Your task to perform on an android device: turn off picture-in-picture Image 0: 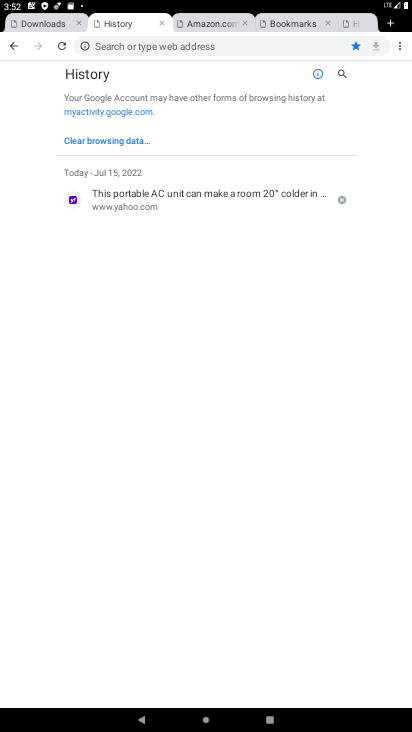
Step 0: press home button
Your task to perform on an android device: turn off picture-in-picture Image 1: 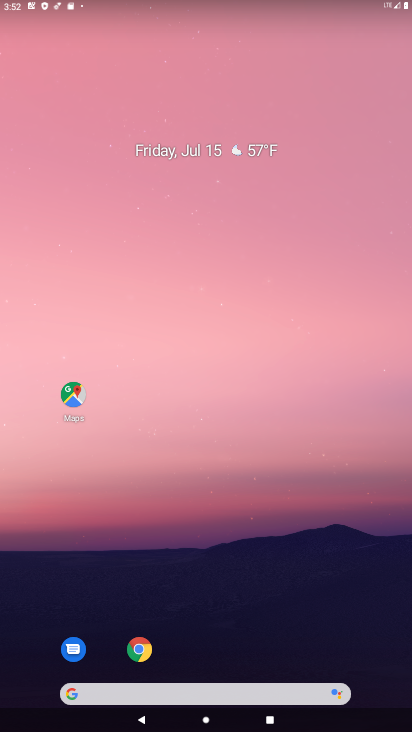
Step 1: drag from (239, 696) to (257, 219)
Your task to perform on an android device: turn off picture-in-picture Image 2: 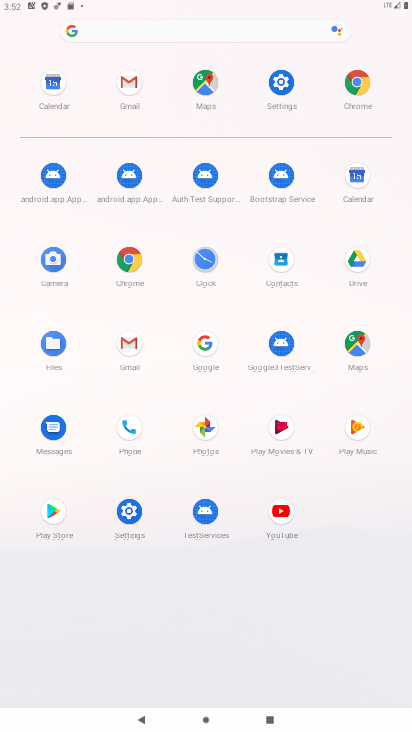
Step 2: click (277, 73)
Your task to perform on an android device: turn off picture-in-picture Image 3: 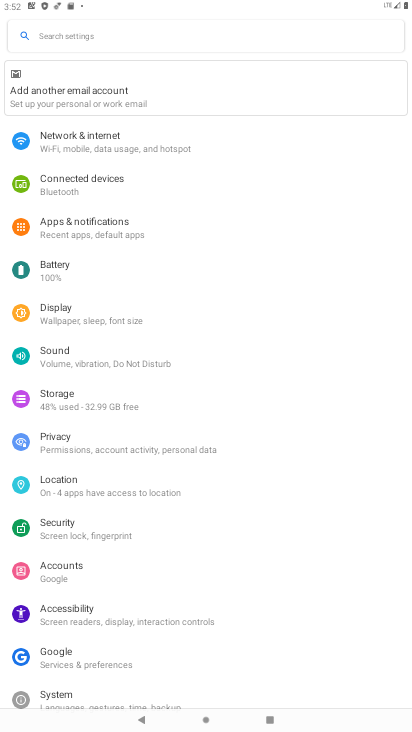
Step 3: click (97, 140)
Your task to perform on an android device: turn off picture-in-picture Image 4: 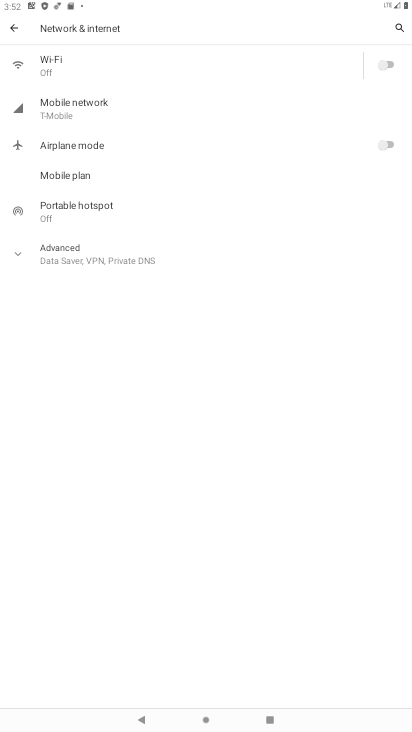
Step 4: click (17, 25)
Your task to perform on an android device: turn off picture-in-picture Image 5: 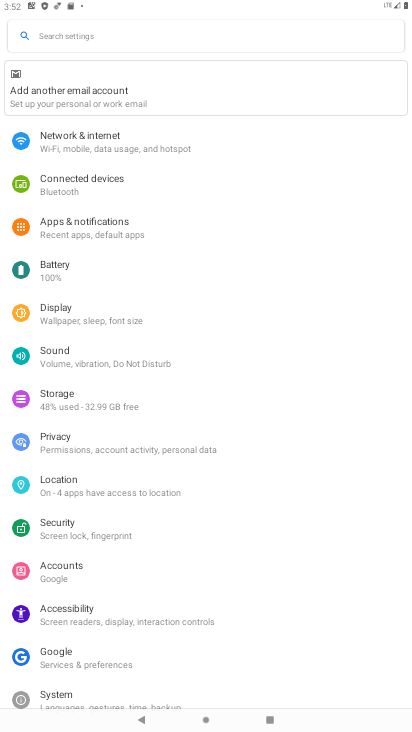
Step 5: click (83, 233)
Your task to perform on an android device: turn off picture-in-picture Image 6: 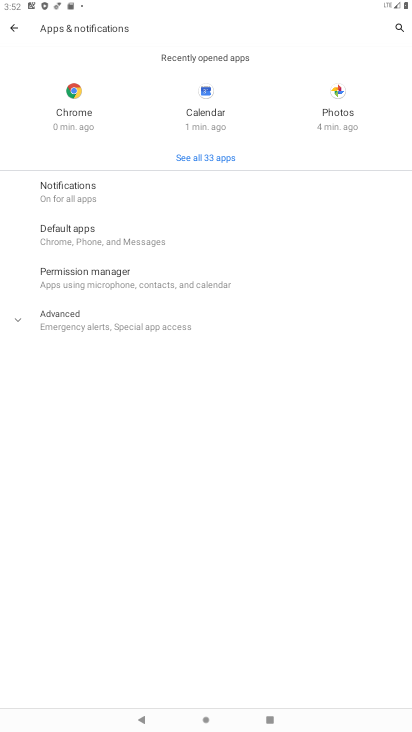
Step 6: click (80, 315)
Your task to perform on an android device: turn off picture-in-picture Image 7: 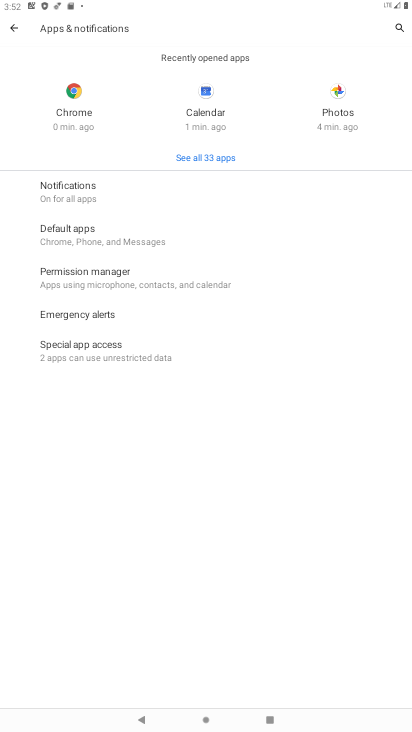
Step 7: click (81, 348)
Your task to perform on an android device: turn off picture-in-picture Image 8: 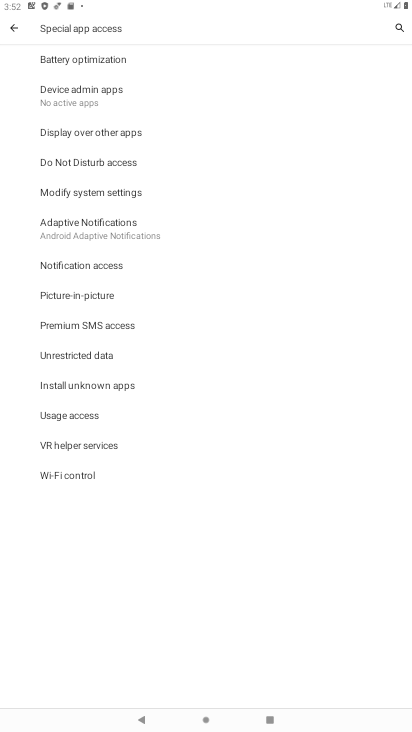
Step 8: click (88, 293)
Your task to perform on an android device: turn off picture-in-picture Image 9: 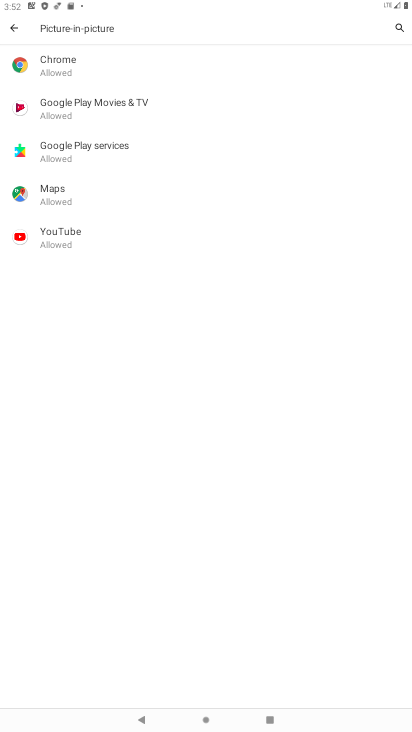
Step 9: click (53, 227)
Your task to perform on an android device: turn off picture-in-picture Image 10: 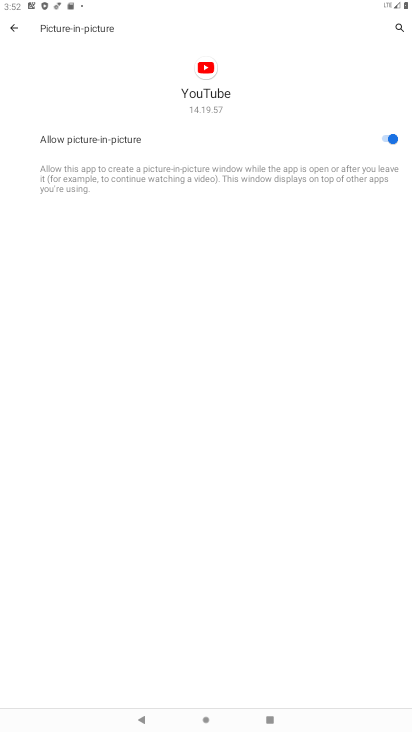
Step 10: click (392, 136)
Your task to perform on an android device: turn off picture-in-picture Image 11: 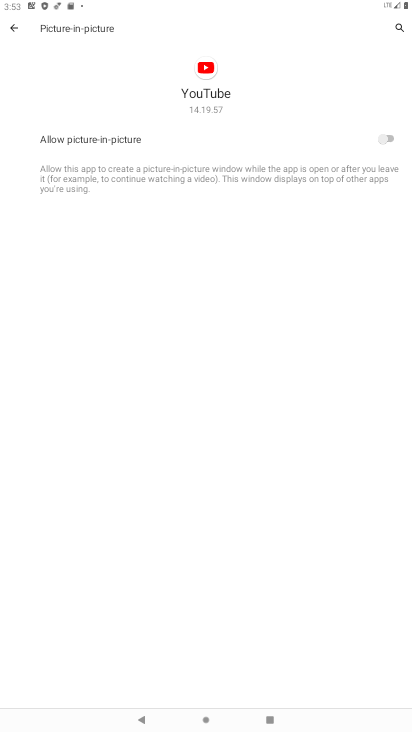
Step 11: task complete